Your task to perform on an android device: Go to Yahoo.com Image 0: 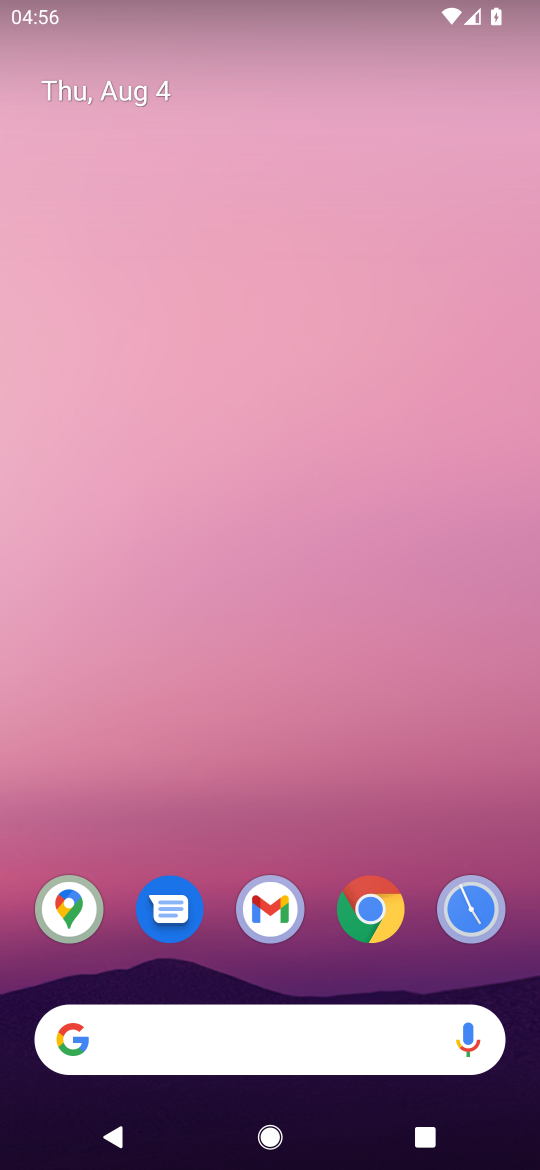
Step 0: press home button
Your task to perform on an android device: Go to Yahoo.com Image 1: 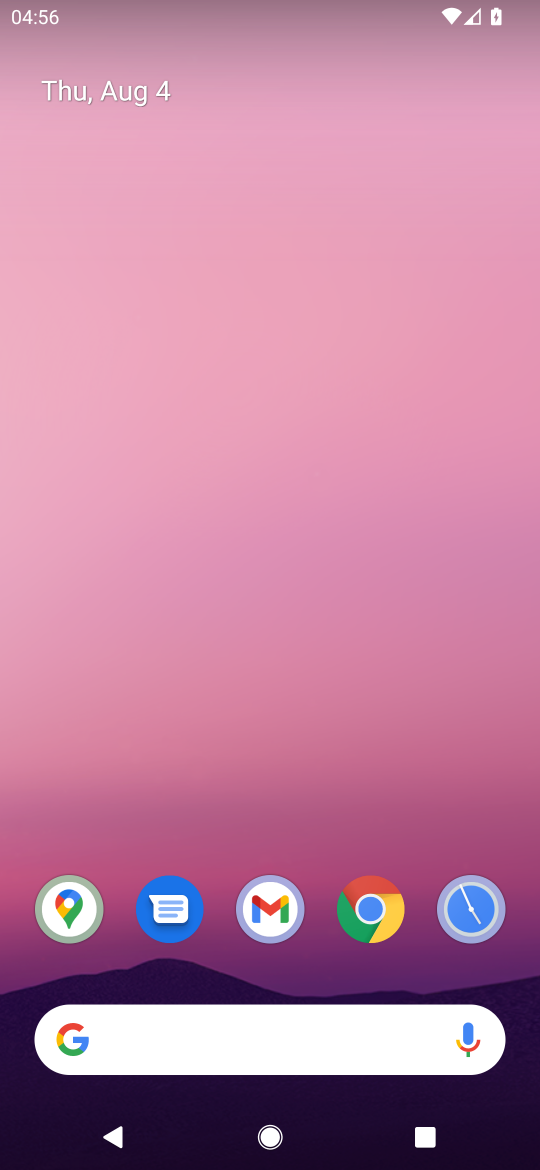
Step 1: click (78, 1048)
Your task to perform on an android device: Go to Yahoo.com Image 2: 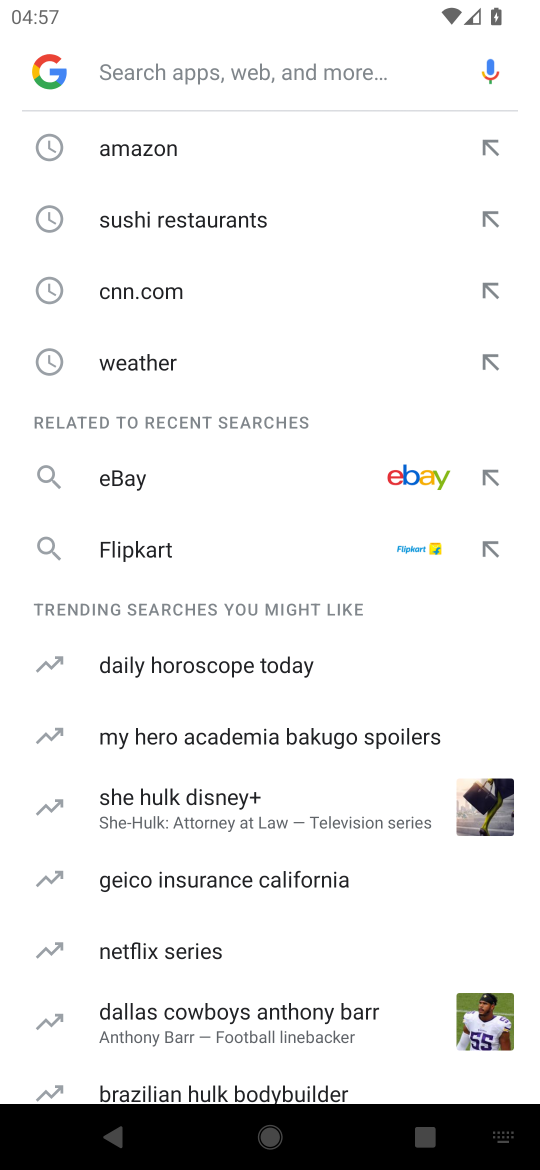
Step 2: type "Yahoo.com"
Your task to perform on an android device: Go to Yahoo.com Image 3: 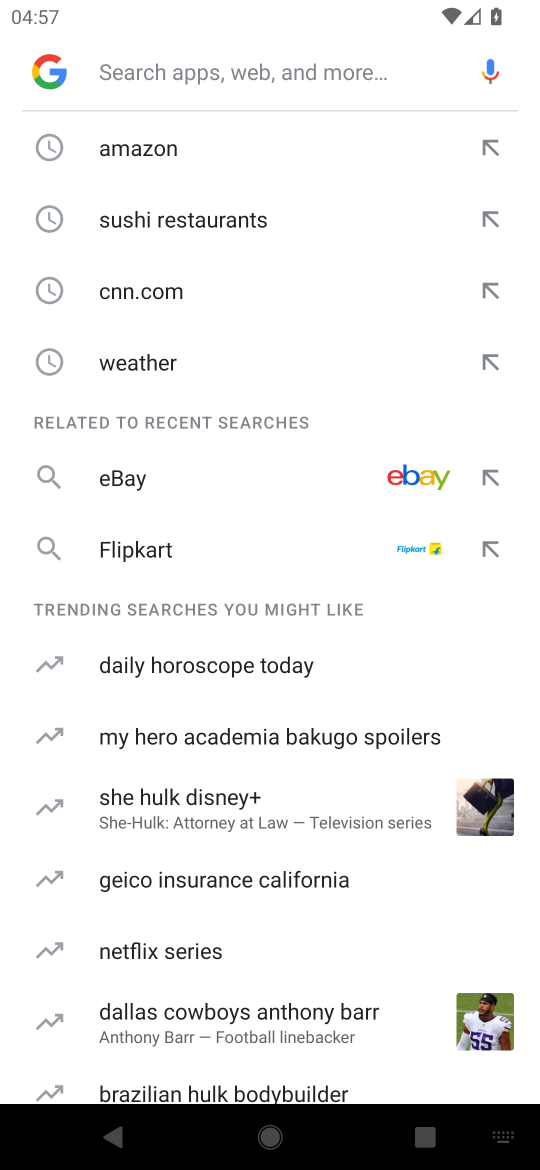
Step 3: click (166, 69)
Your task to perform on an android device: Go to Yahoo.com Image 4: 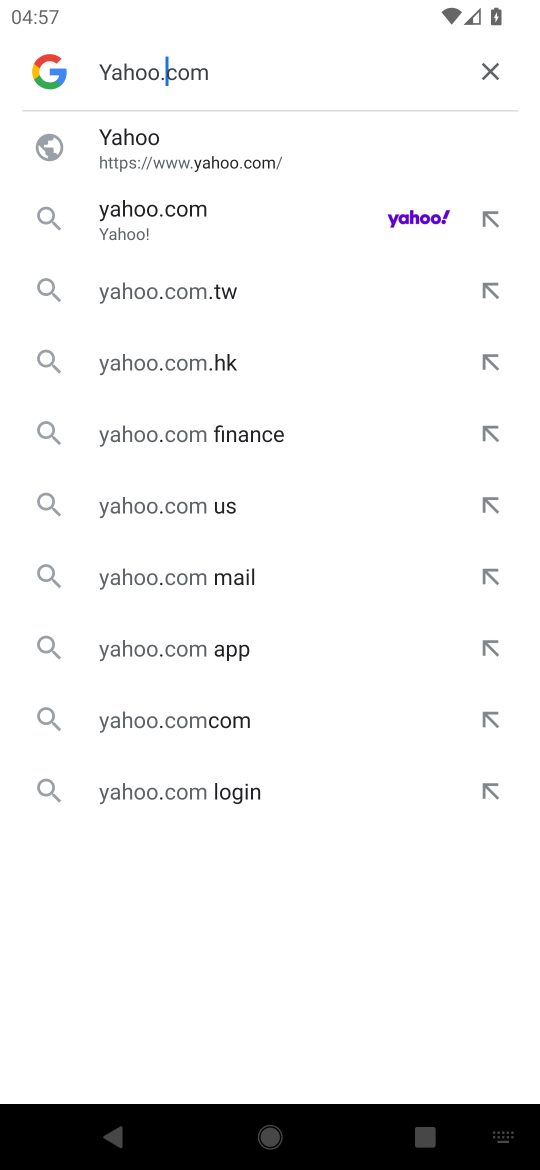
Step 4: click (160, 217)
Your task to perform on an android device: Go to Yahoo.com Image 5: 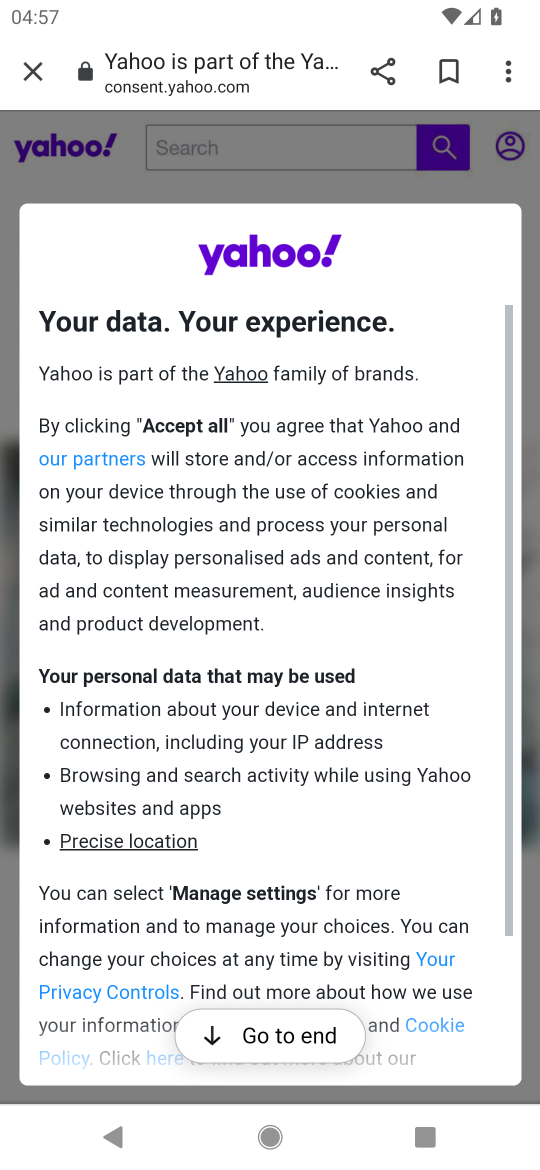
Step 5: click (265, 1044)
Your task to perform on an android device: Go to Yahoo.com Image 6: 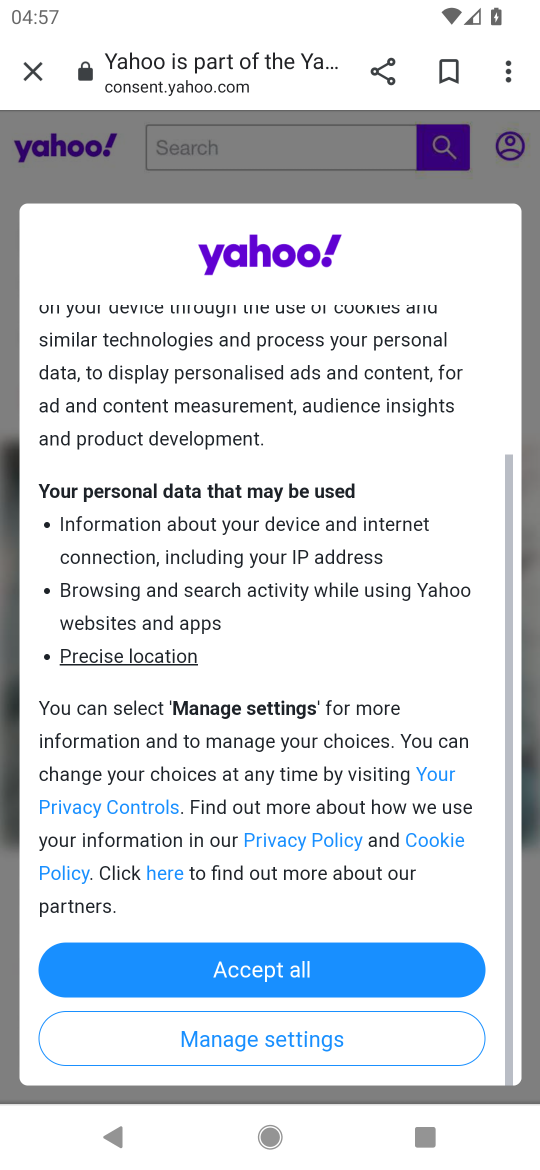
Step 6: click (258, 970)
Your task to perform on an android device: Go to Yahoo.com Image 7: 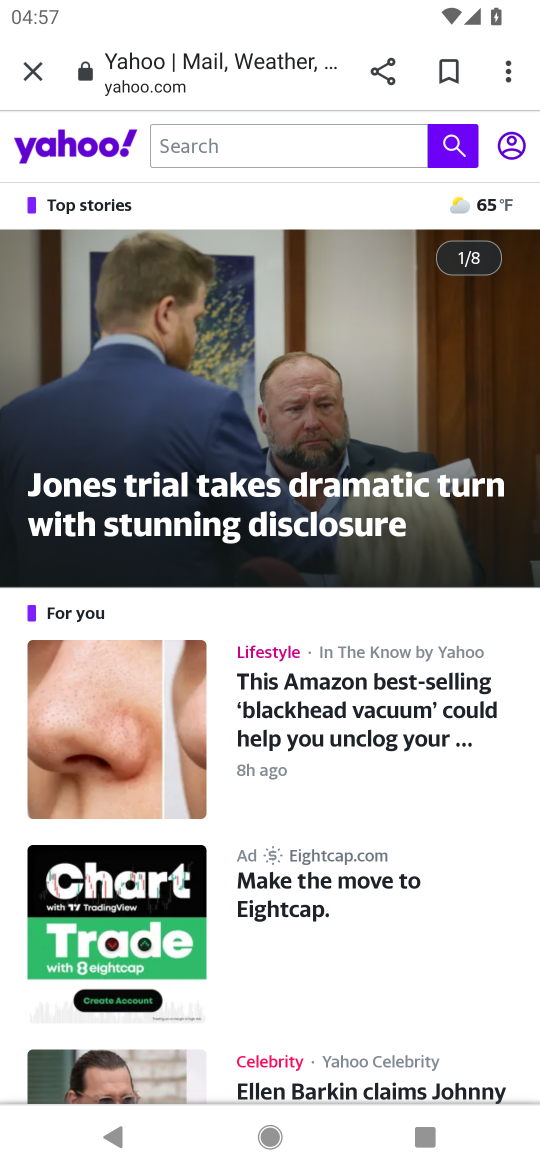
Step 7: task complete